Your task to perform on an android device: Open network settings Image 0: 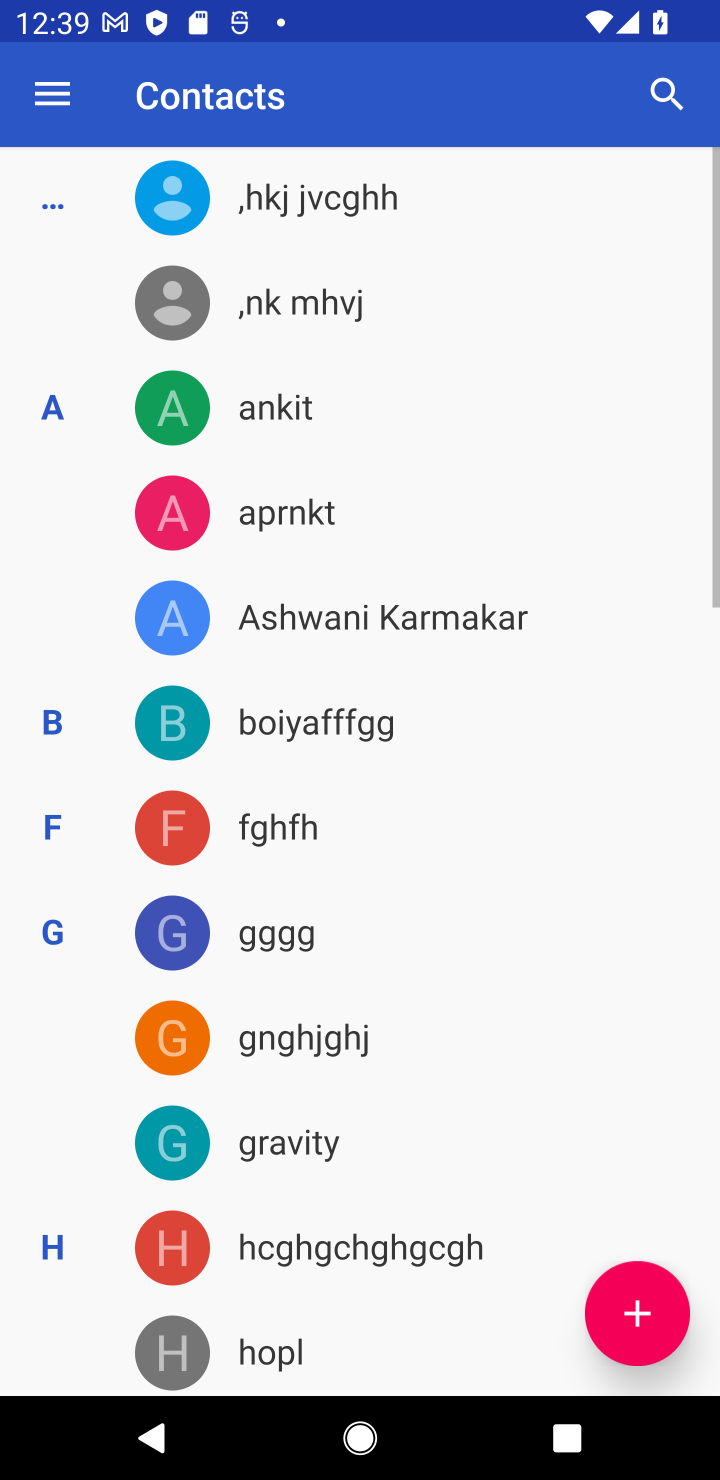
Step 0: press home button
Your task to perform on an android device: Open network settings Image 1: 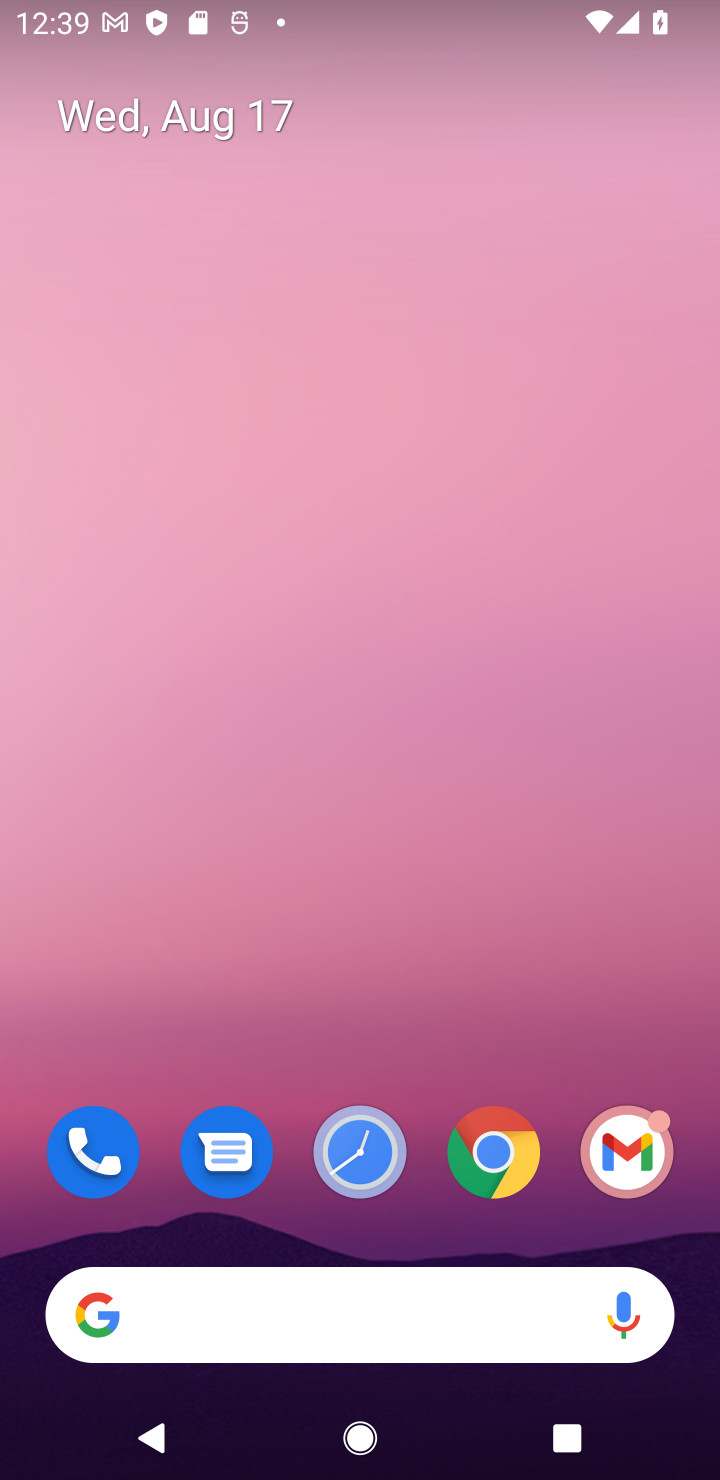
Step 1: drag from (568, 1192) to (442, 33)
Your task to perform on an android device: Open network settings Image 2: 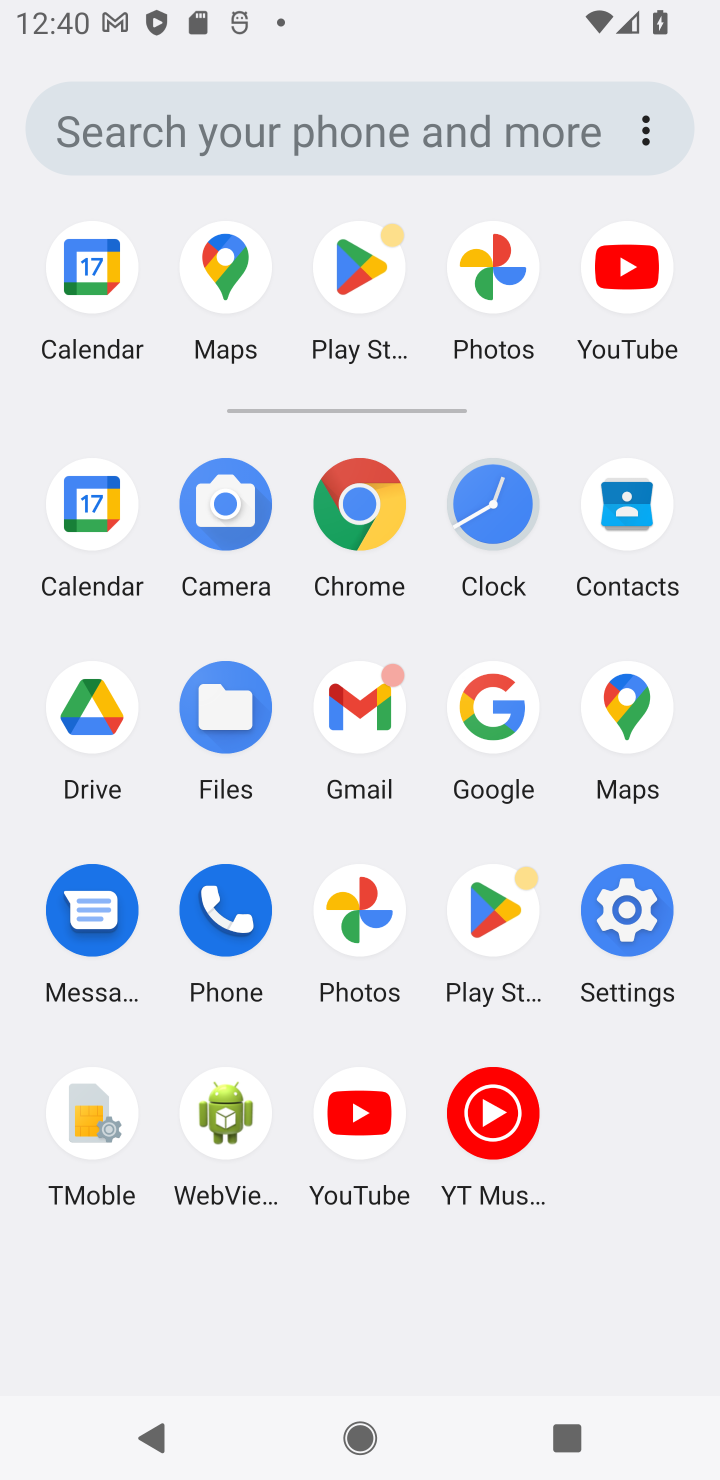
Step 2: click (648, 974)
Your task to perform on an android device: Open network settings Image 3: 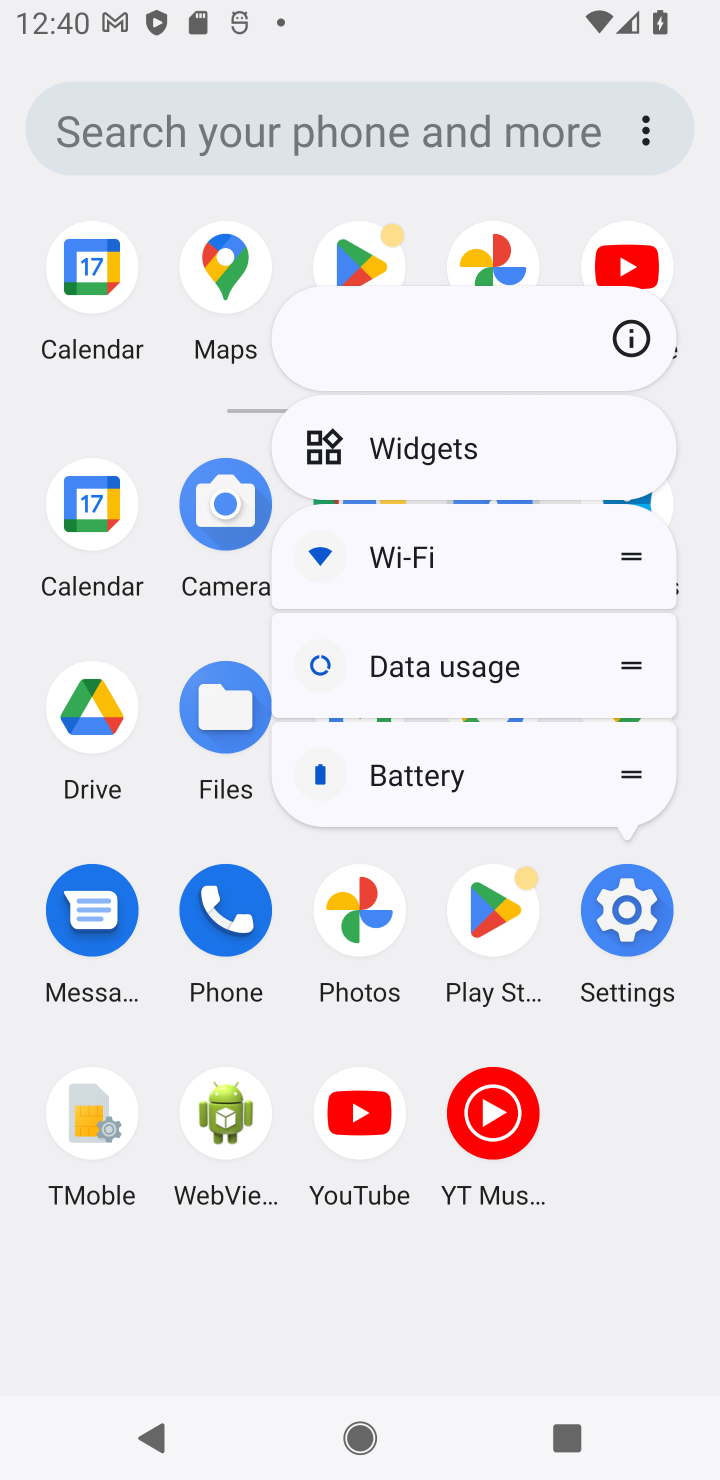
Step 3: click (625, 930)
Your task to perform on an android device: Open network settings Image 4: 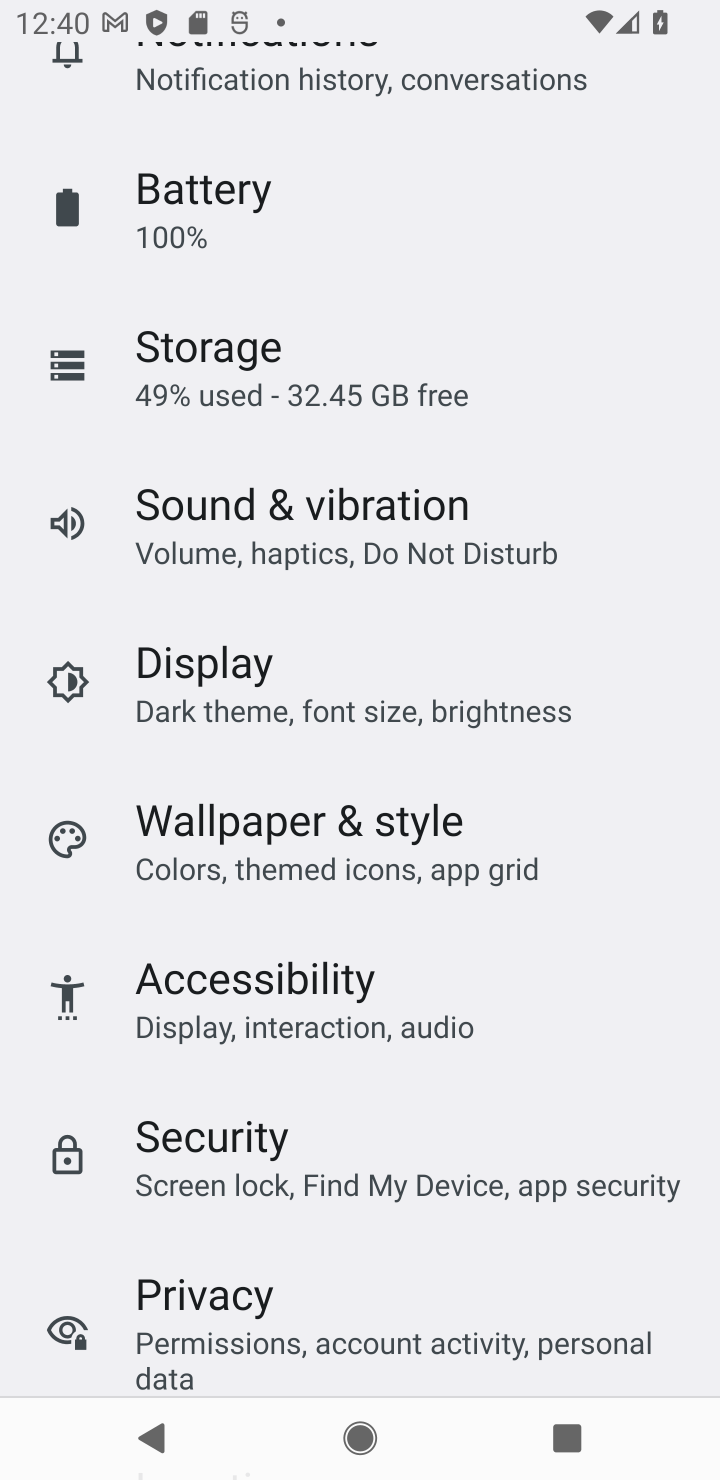
Step 4: drag from (246, 184) to (443, 1276)
Your task to perform on an android device: Open network settings Image 5: 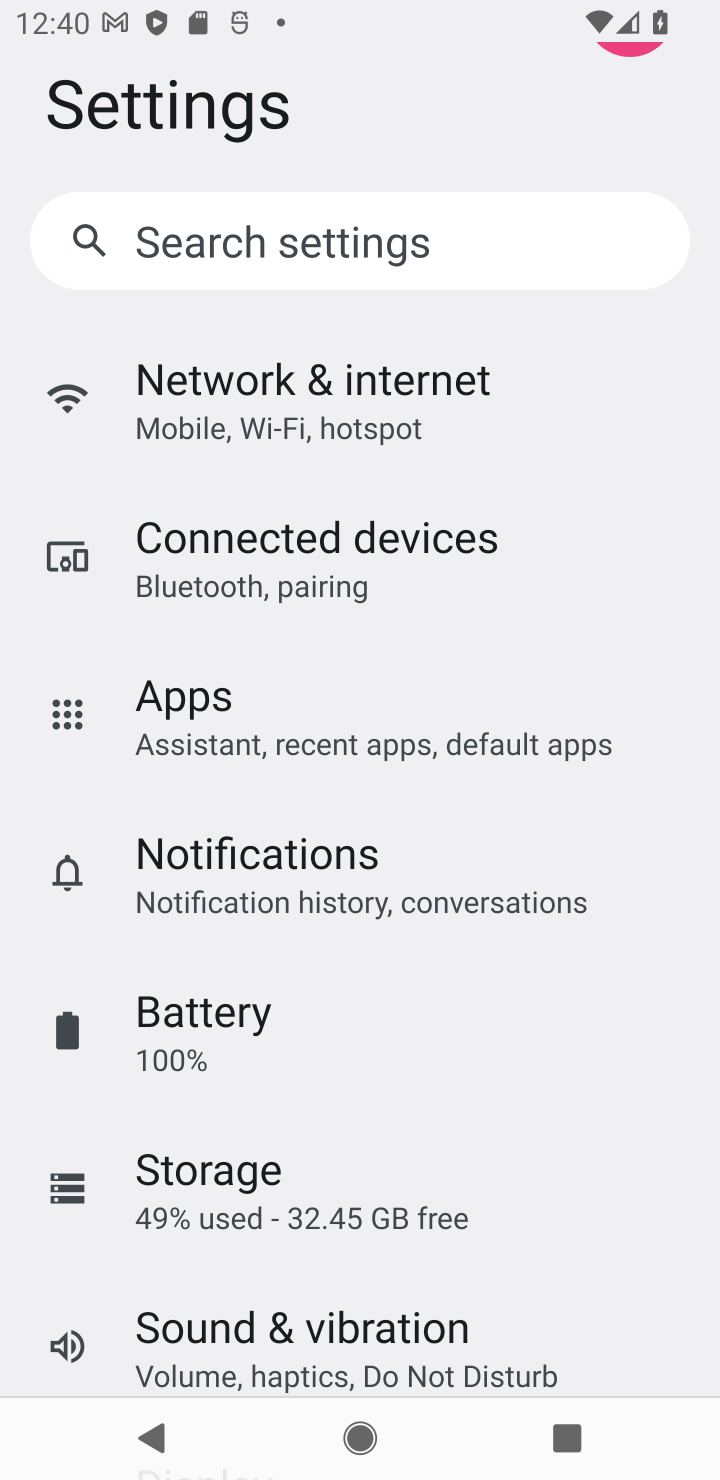
Step 5: click (378, 413)
Your task to perform on an android device: Open network settings Image 6: 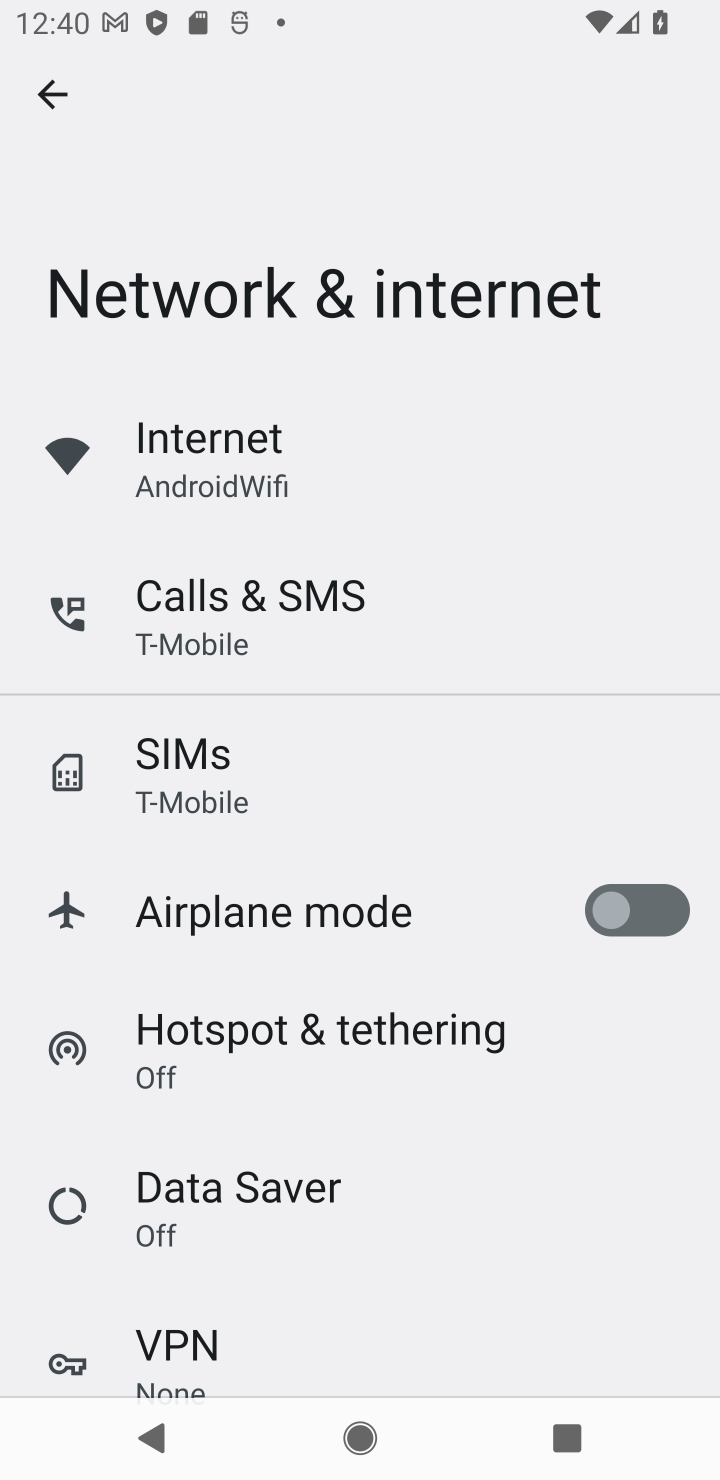
Step 6: task complete